Your task to perform on an android device: Open calendar and show me the fourth week of next month Image 0: 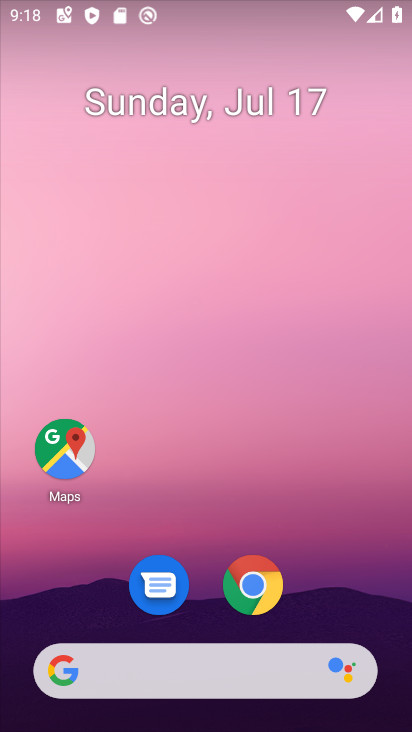
Step 0: drag from (348, 579) to (328, 56)
Your task to perform on an android device: Open calendar and show me the fourth week of next month Image 1: 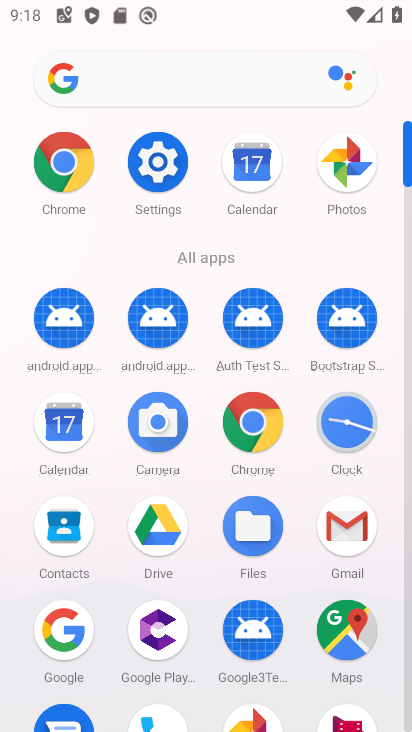
Step 1: click (242, 160)
Your task to perform on an android device: Open calendar and show me the fourth week of next month Image 2: 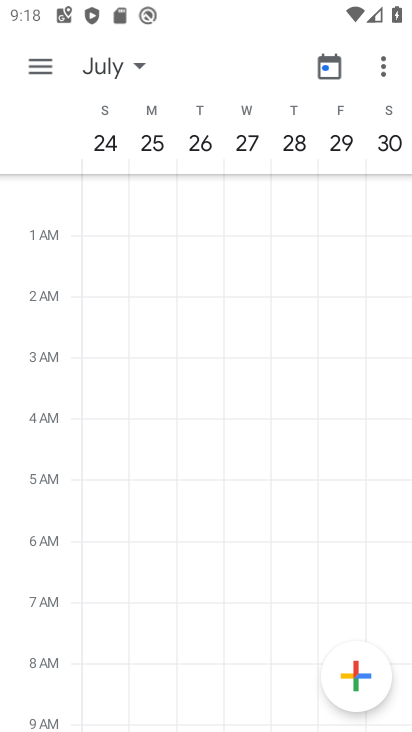
Step 2: task complete